Your task to perform on an android device: toggle notification dots Image 0: 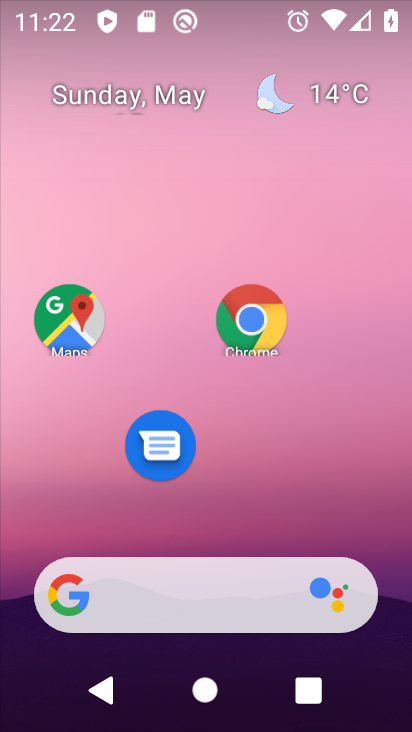
Step 0: press home button
Your task to perform on an android device: toggle notification dots Image 1: 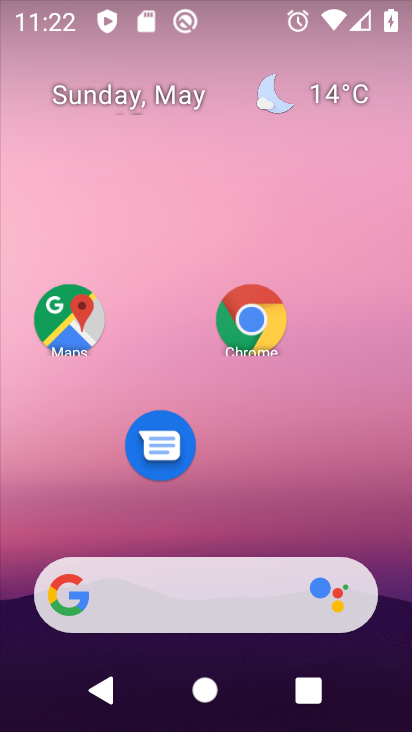
Step 1: drag from (161, 592) to (292, 160)
Your task to perform on an android device: toggle notification dots Image 2: 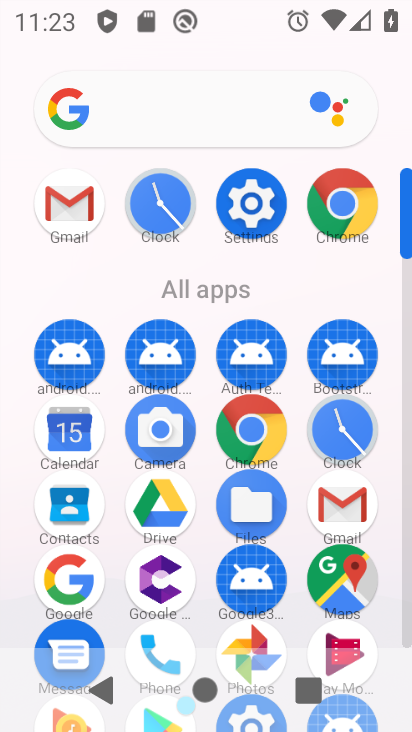
Step 2: click (257, 201)
Your task to perform on an android device: toggle notification dots Image 3: 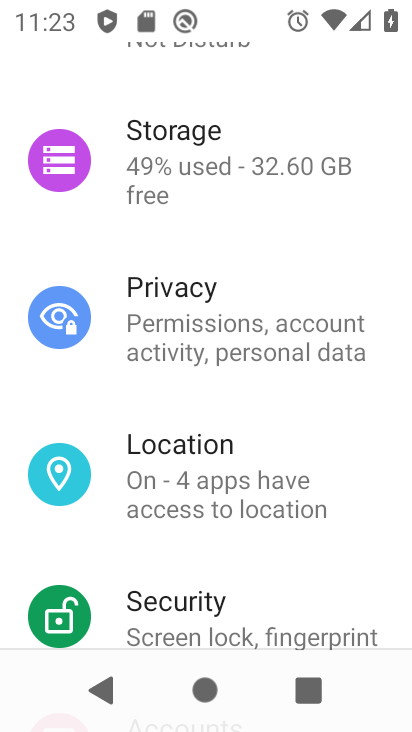
Step 3: drag from (268, 211) to (206, 611)
Your task to perform on an android device: toggle notification dots Image 4: 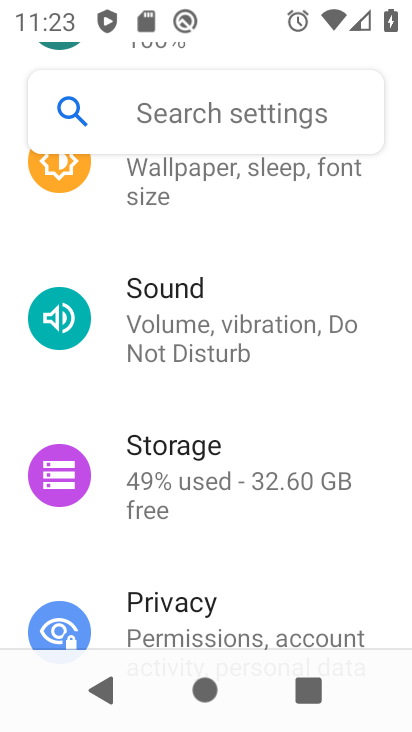
Step 4: drag from (263, 248) to (235, 565)
Your task to perform on an android device: toggle notification dots Image 5: 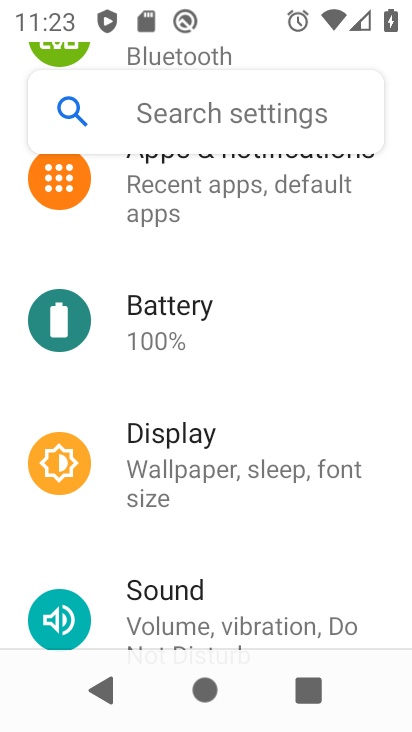
Step 5: drag from (299, 508) to (285, 650)
Your task to perform on an android device: toggle notification dots Image 6: 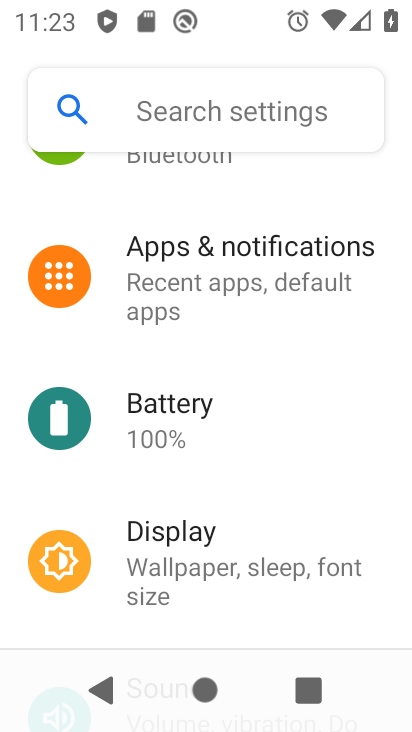
Step 6: click (247, 274)
Your task to perform on an android device: toggle notification dots Image 7: 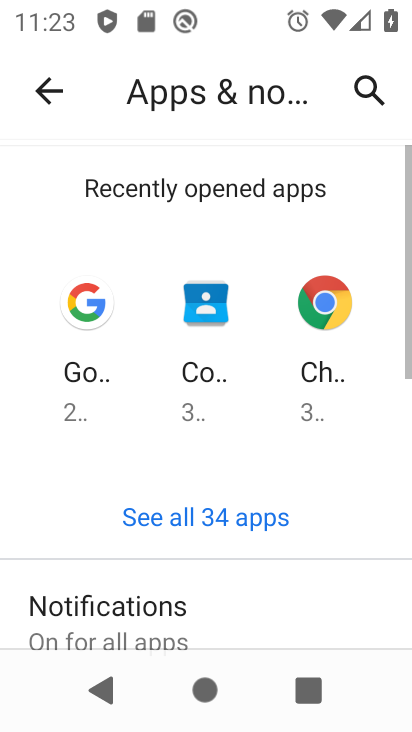
Step 7: drag from (191, 587) to (337, 255)
Your task to perform on an android device: toggle notification dots Image 8: 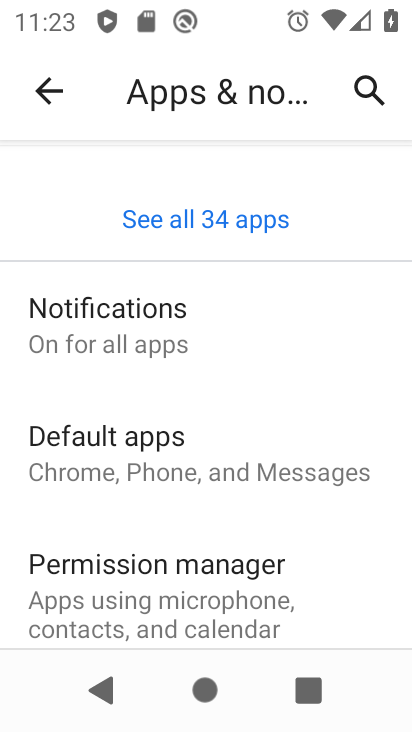
Step 8: click (163, 325)
Your task to perform on an android device: toggle notification dots Image 9: 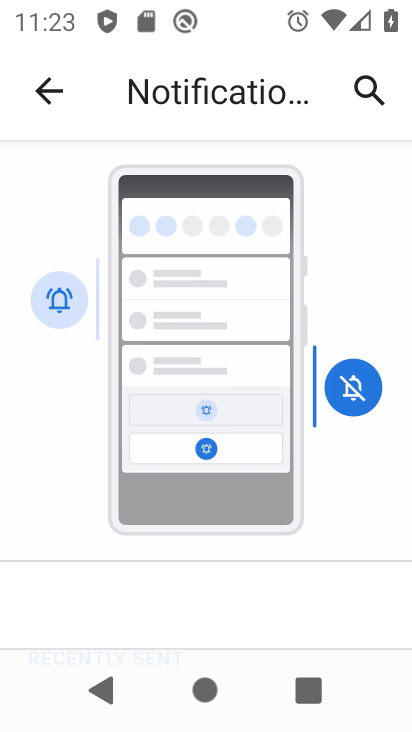
Step 9: drag from (218, 599) to (403, 177)
Your task to perform on an android device: toggle notification dots Image 10: 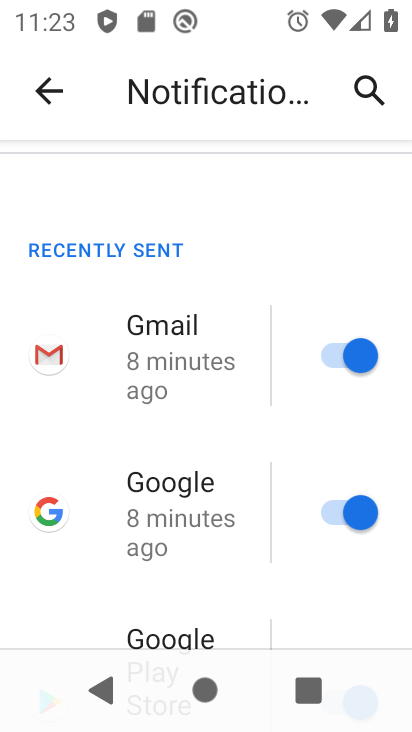
Step 10: drag from (213, 608) to (397, 127)
Your task to perform on an android device: toggle notification dots Image 11: 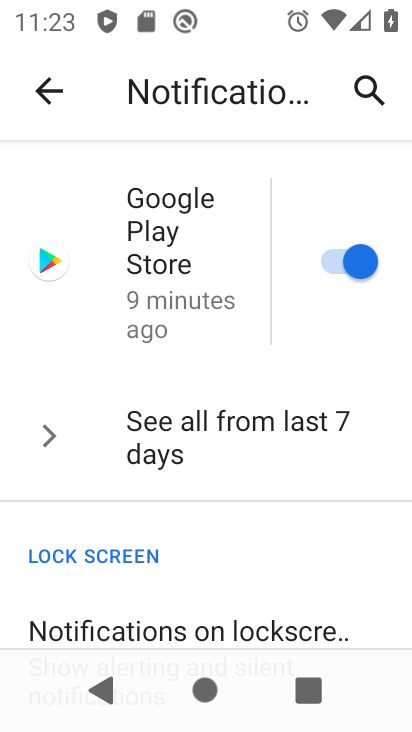
Step 11: drag from (215, 579) to (339, 101)
Your task to perform on an android device: toggle notification dots Image 12: 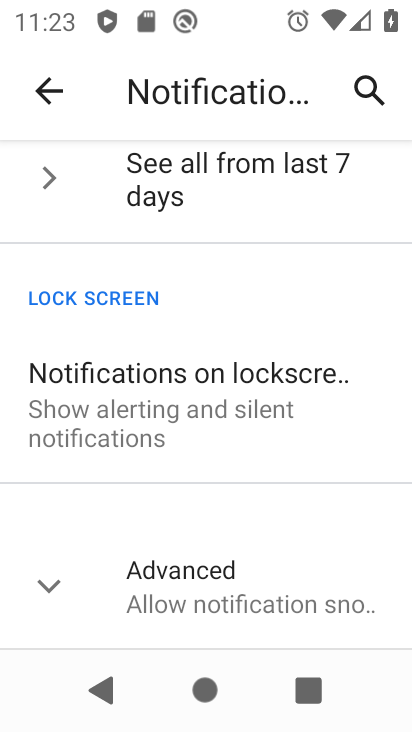
Step 12: click (183, 576)
Your task to perform on an android device: toggle notification dots Image 13: 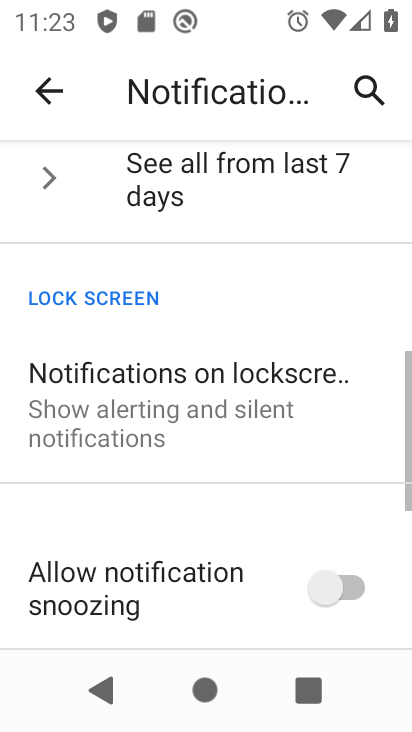
Step 13: drag from (206, 583) to (339, 118)
Your task to perform on an android device: toggle notification dots Image 14: 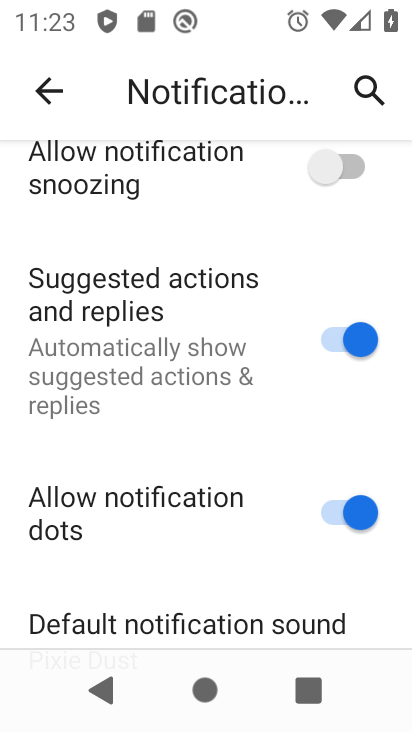
Step 14: click (335, 517)
Your task to perform on an android device: toggle notification dots Image 15: 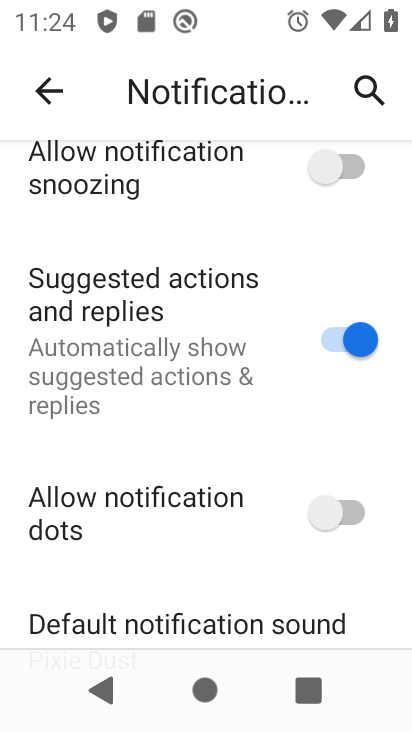
Step 15: task complete